Your task to perform on an android device: Toggle the flashlight Image 0: 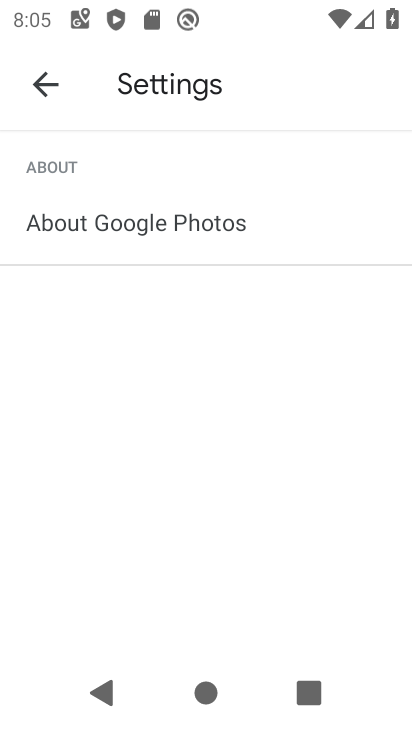
Step 0: press home button
Your task to perform on an android device: Toggle the flashlight Image 1: 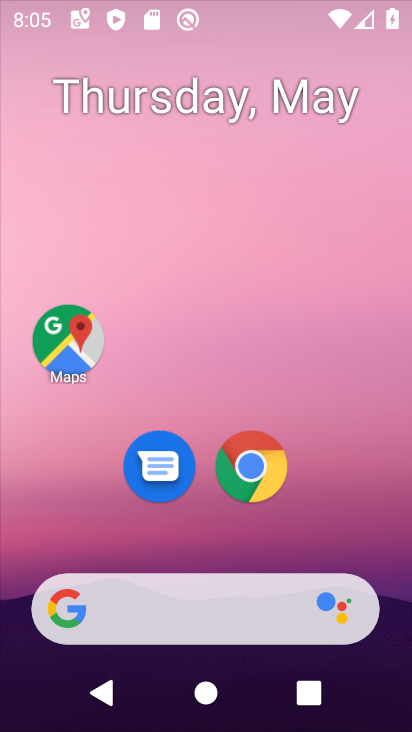
Step 1: task complete